Your task to perform on an android device: set the stopwatch Image 0: 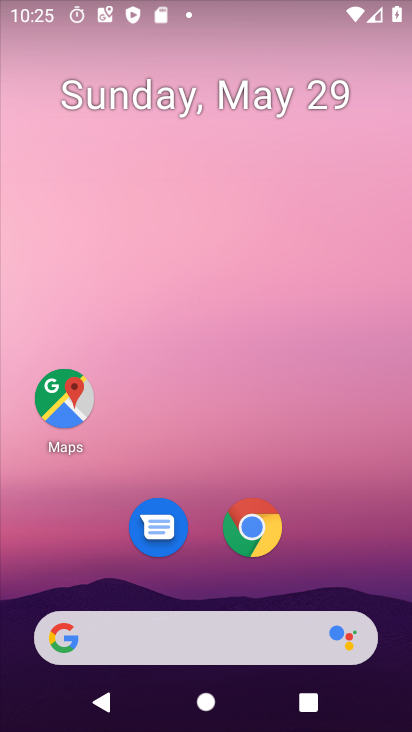
Step 0: drag from (353, 518) to (366, 43)
Your task to perform on an android device: set the stopwatch Image 1: 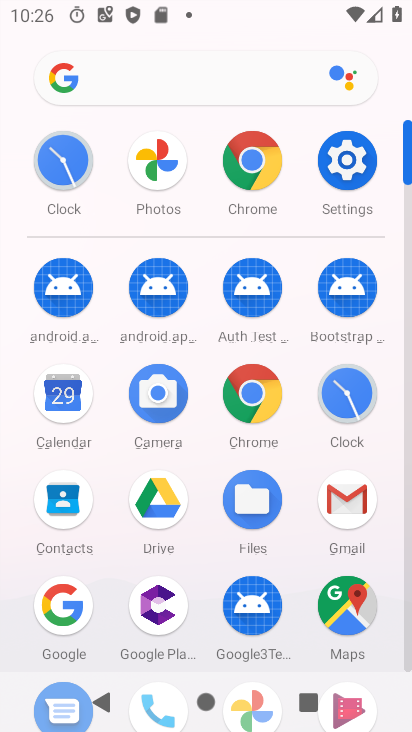
Step 1: click (357, 395)
Your task to perform on an android device: set the stopwatch Image 2: 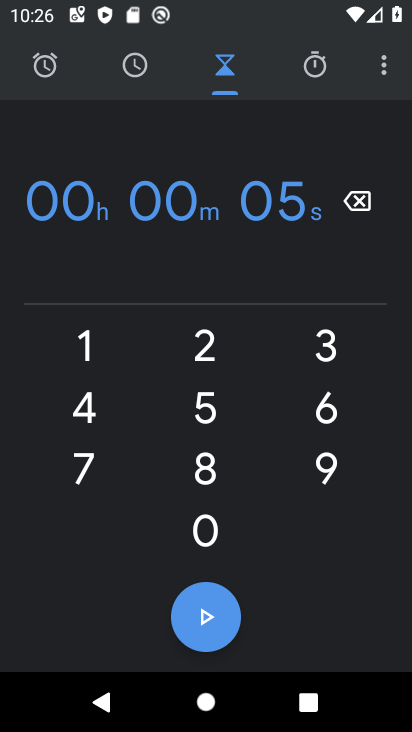
Step 2: click (326, 71)
Your task to perform on an android device: set the stopwatch Image 3: 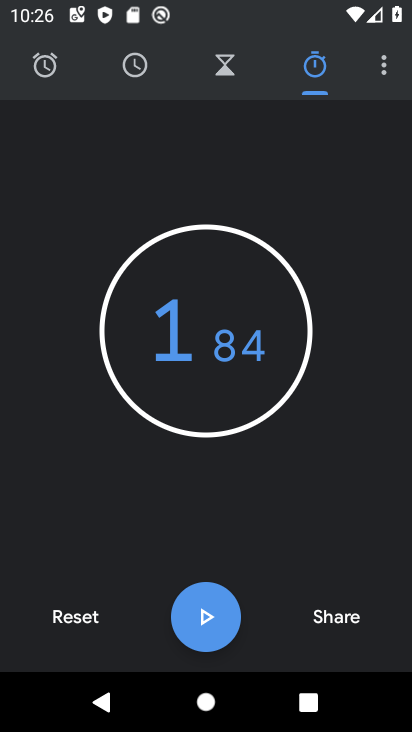
Step 3: task complete